Your task to perform on an android device: turn on data saver in the chrome app Image 0: 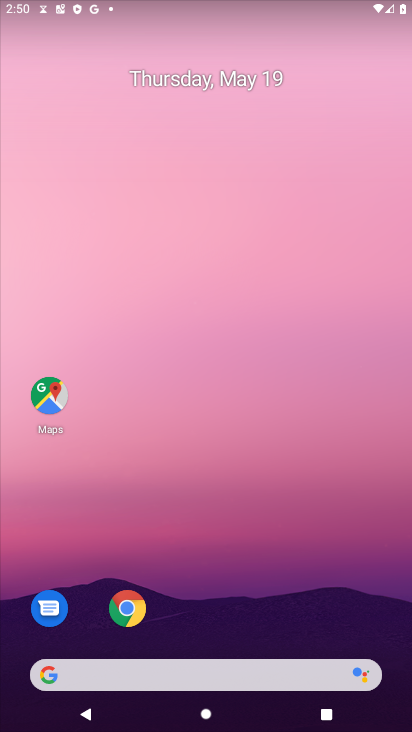
Step 0: click (132, 617)
Your task to perform on an android device: turn on data saver in the chrome app Image 1: 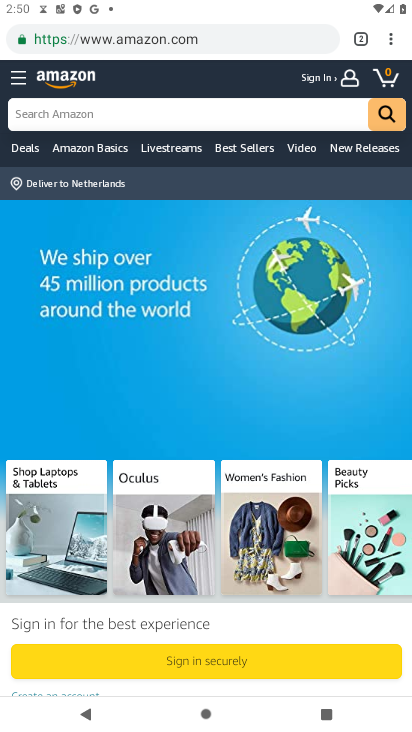
Step 1: click (393, 37)
Your task to perform on an android device: turn on data saver in the chrome app Image 2: 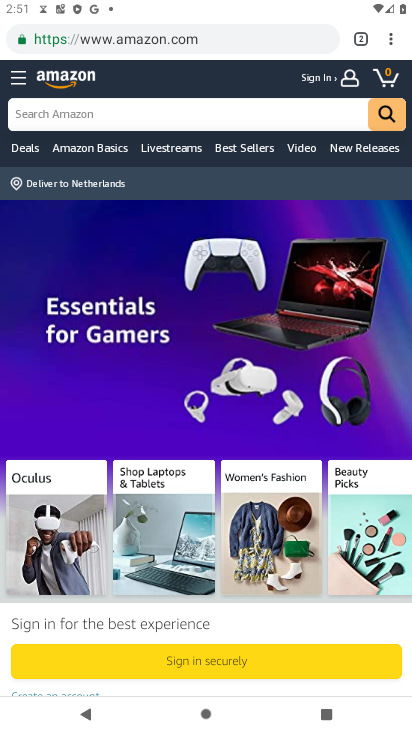
Step 2: click (393, 37)
Your task to perform on an android device: turn on data saver in the chrome app Image 3: 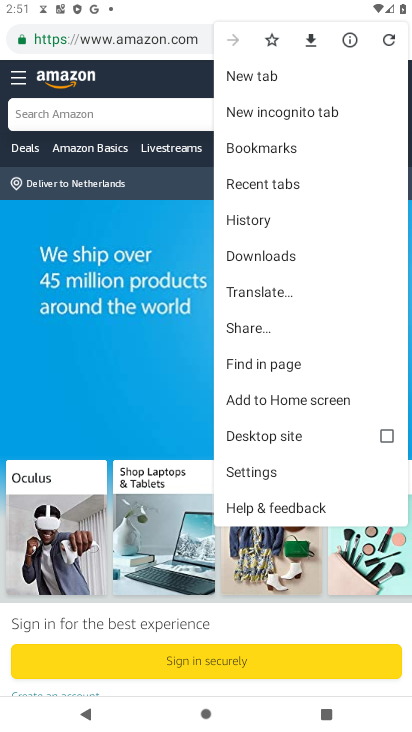
Step 3: click (351, 469)
Your task to perform on an android device: turn on data saver in the chrome app Image 4: 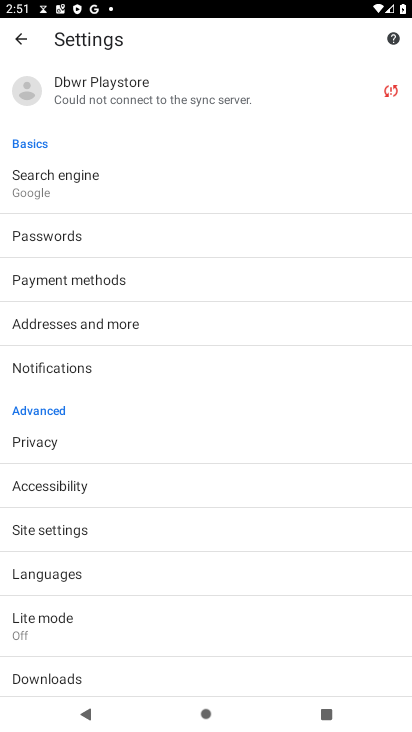
Step 4: click (289, 637)
Your task to perform on an android device: turn on data saver in the chrome app Image 5: 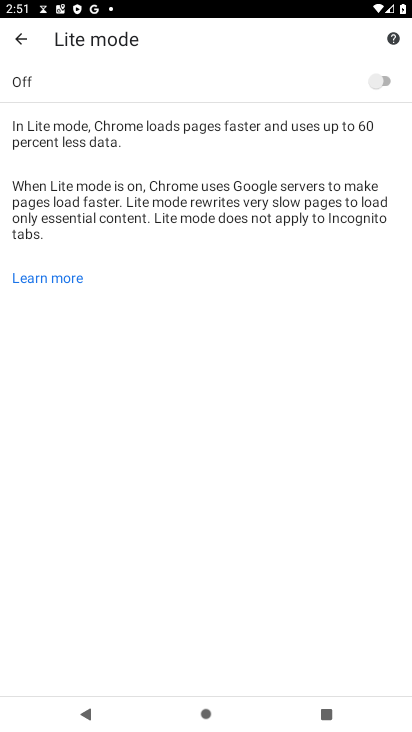
Step 5: click (377, 81)
Your task to perform on an android device: turn on data saver in the chrome app Image 6: 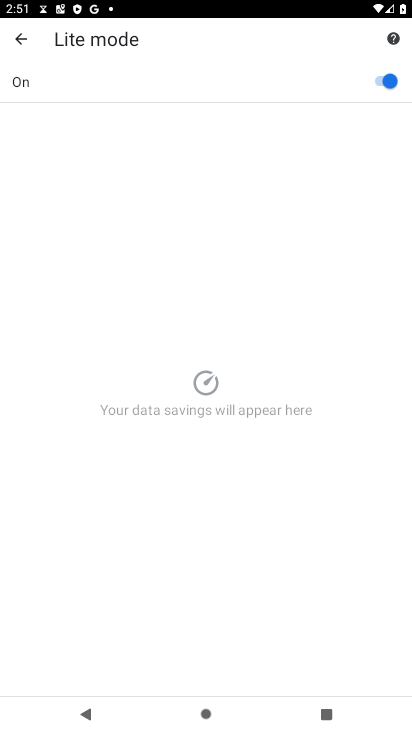
Step 6: task complete